Your task to perform on an android device: What is the recent news? Image 0: 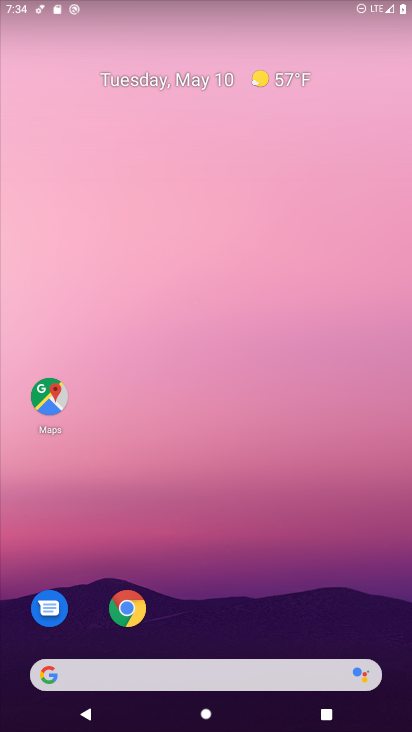
Step 0: drag from (309, 610) to (300, 35)
Your task to perform on an android device: What is the recent news? Image 1: 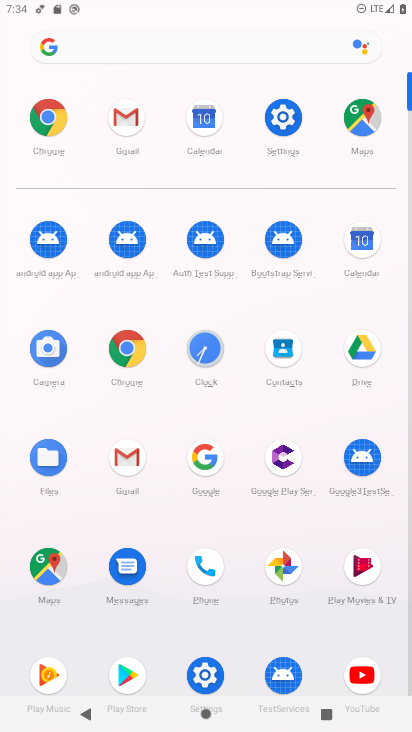
Step 1: click (117, 345)
Your task to perform on an android device: What is the recent news? Image 2: 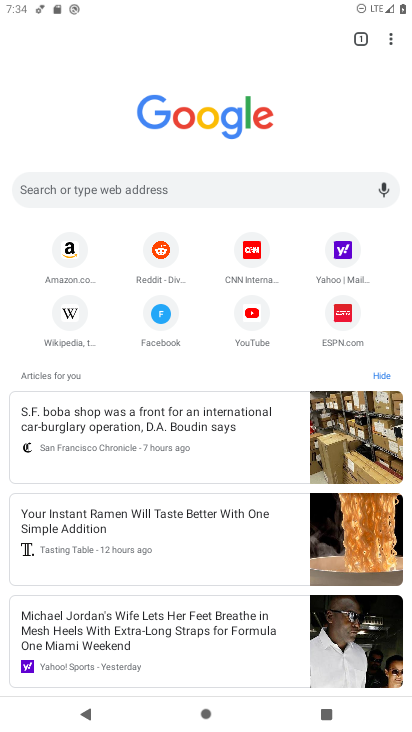
Step 2: click (191, 425)
Your task to perform on an android device: What is the recent news? Image 3: 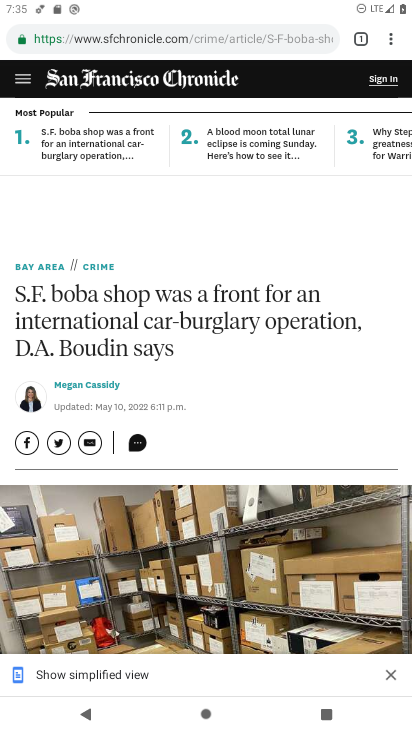
Step 3: task complete